Your task to perform on an android device: change keyboard looks Image 0: 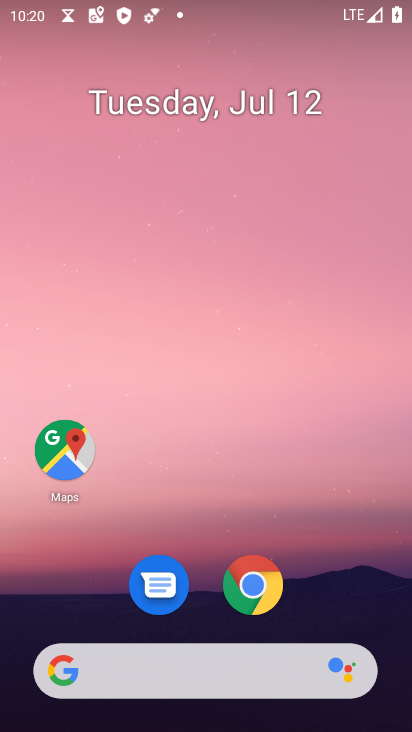
Step 0: drag from (252, 591) to (336, 113)
Your task to perform on an android device: change keyboard looks Image 1: 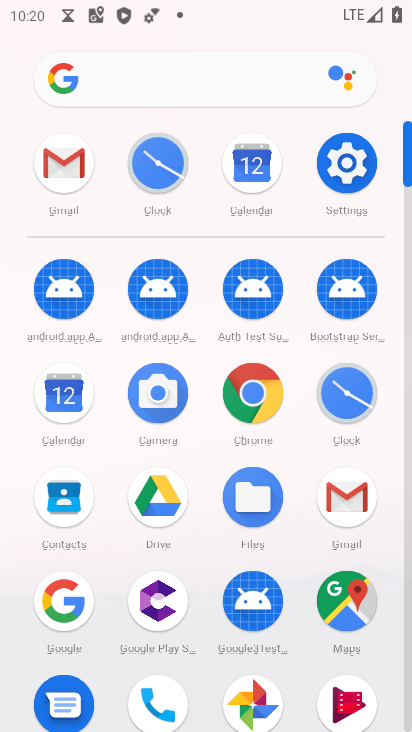
Step 1: click (339, 151)
Your task to perform on an android device: change keyboard looks Image 2: 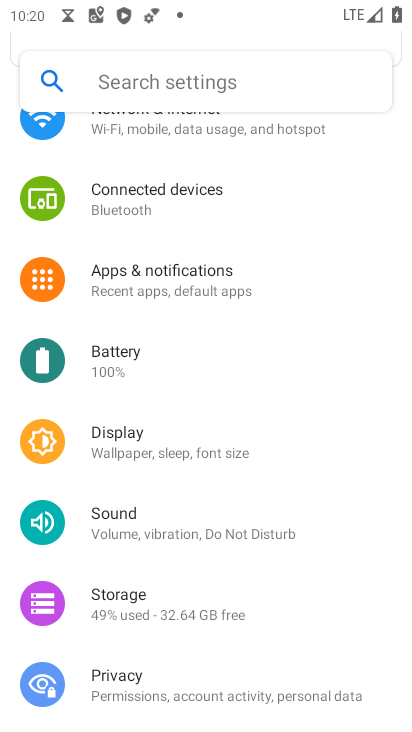
Step 2: drag from (291, 589) to (367, 148)
Your task to perform on an android device: change keyboard looks Image 3: 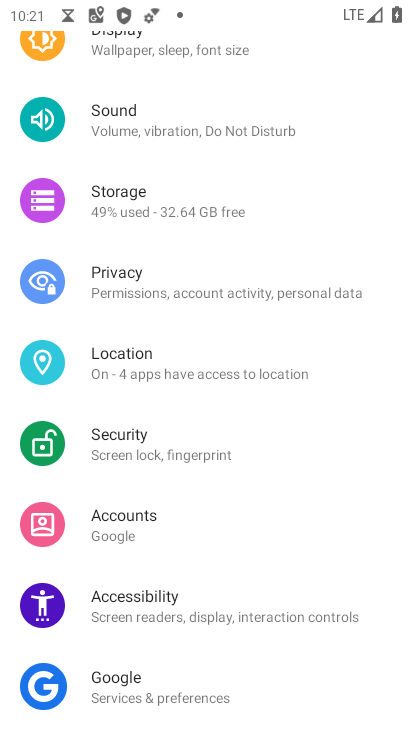
Step 3: drag from (284, 549) to (399, 170)
Your task to perform on an android device: change keyboard looks Image 4: 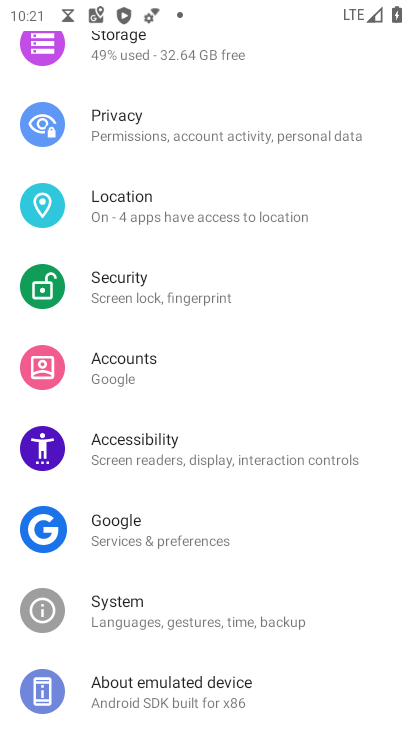
Step 4: click (197, 615)
Your task to perform on an android device: change keyboard looks Image 5: 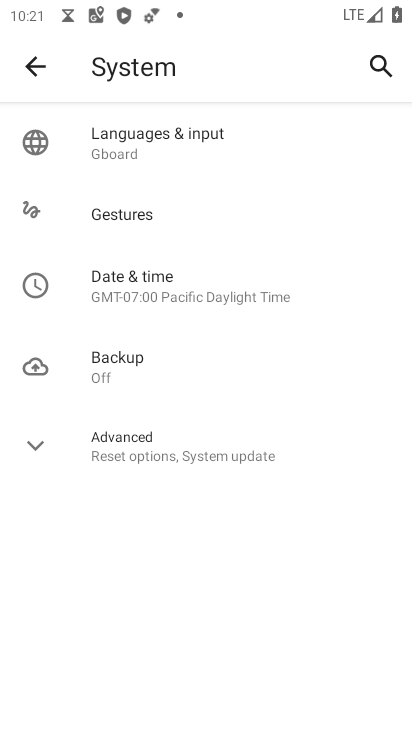
Step 5: click (144, 221)
Your task to perform on an android device: change keyboard looks Image 6: 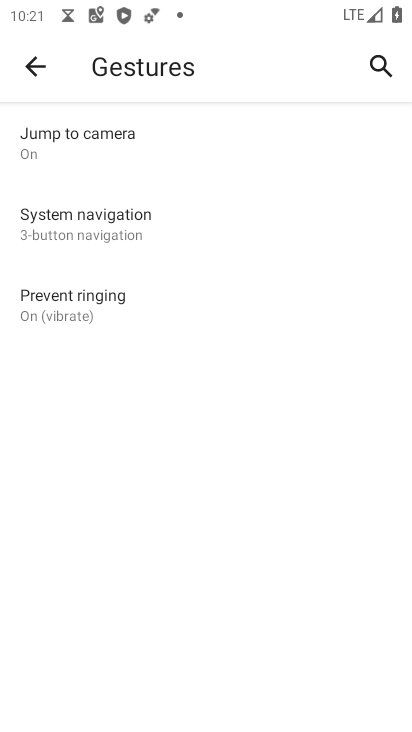
Step 6: click (37, 68)
Your task to perform on an android device: change keyboard looks Image 7: 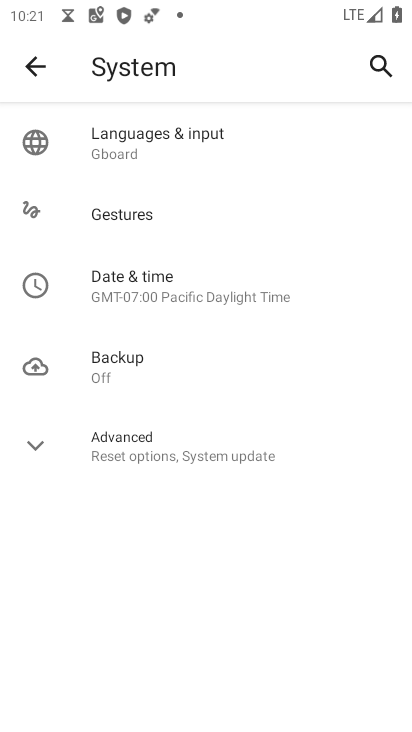
Step 7: click (162, 139)
Your task to perform on an android device: change keyboard looks Image 8: 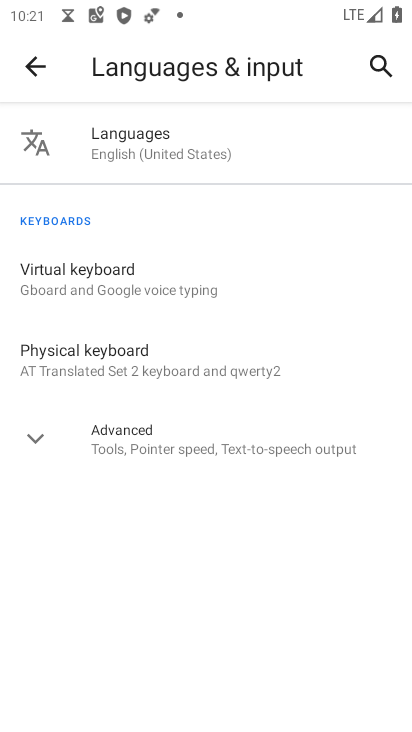
Step 8: click (137, 285)
Your task to perform on an android device: change keyboard looks Image 9: 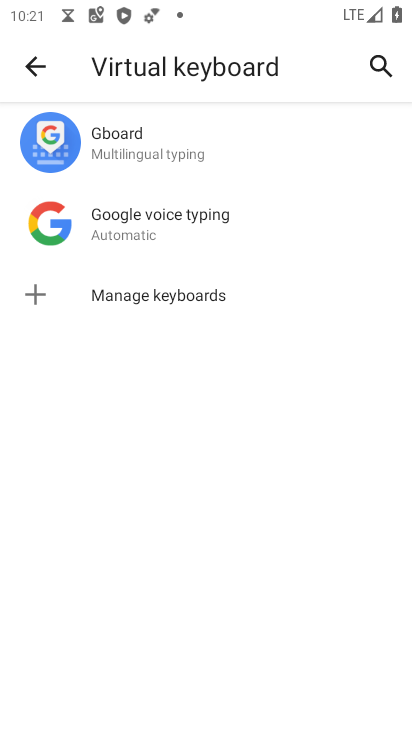
Step 9: click (176, 146)
Your task to perform on an android device: change keyboard looks Image 10: 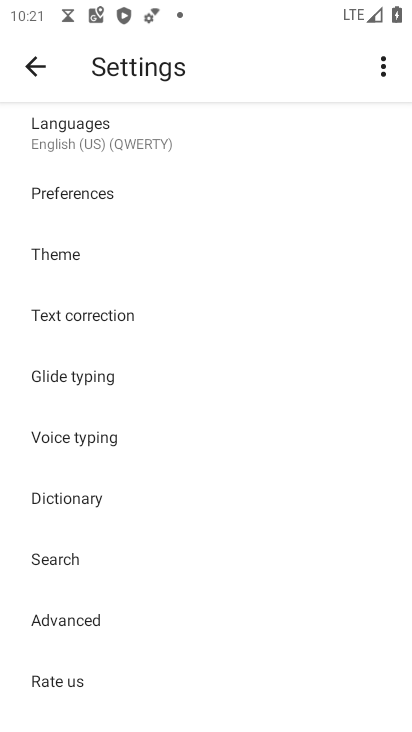
Step 10: click (67, 253)
Your task to perform on an android device: change keyboard looks Image 11: 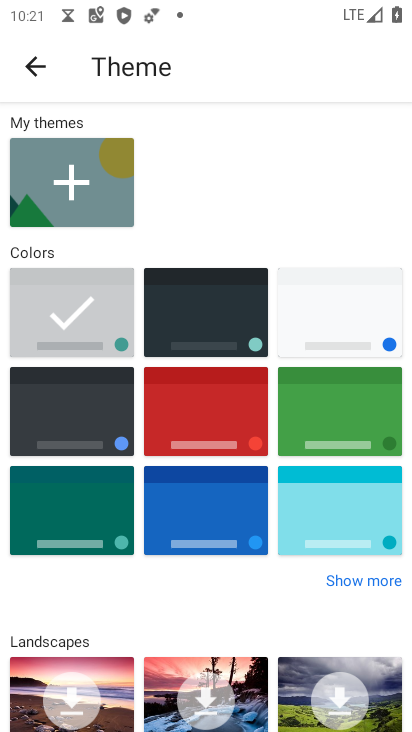
Step 11: click (80, 414)
Your task to perform on an android device: change keyboard looks Image 12: 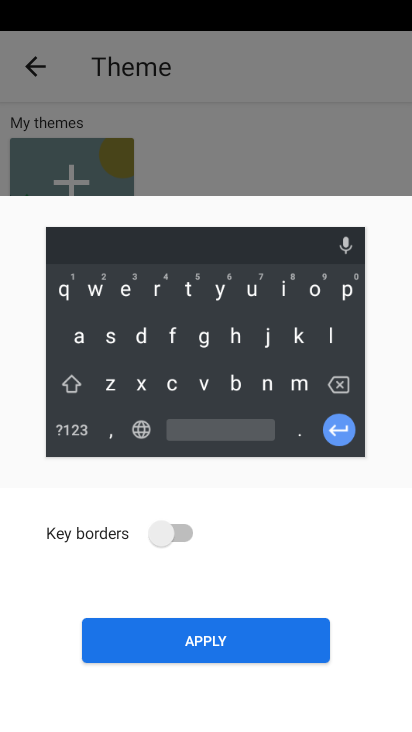
Step 12: click (202, 634)
Your task to perform on an android device: change keyboard looks Image 13: 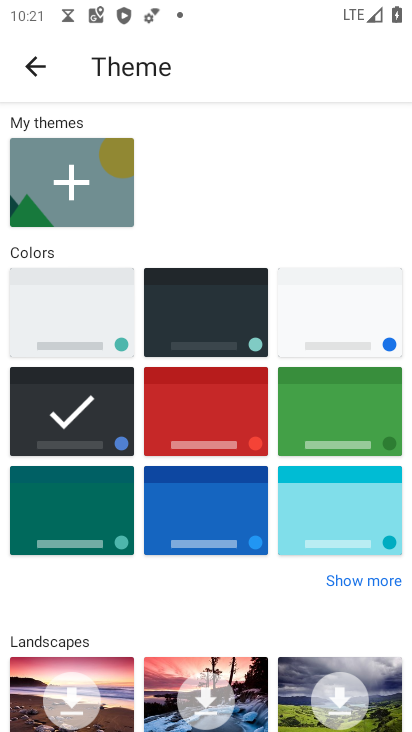
Step 13: task complete